Your task to perform on an android device: Open Reddit.com Image 0: 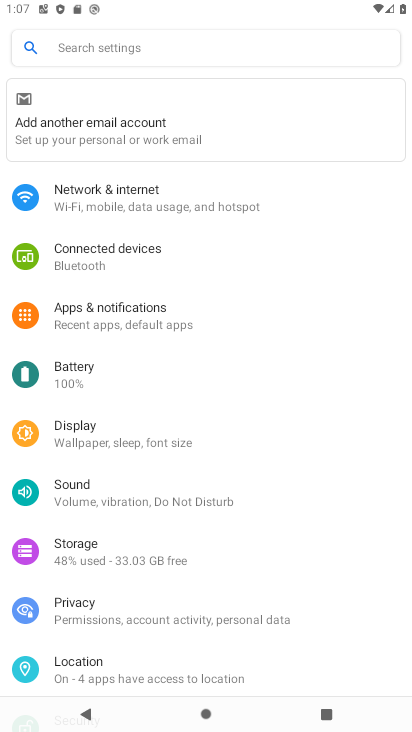
Step 0: press home button
Your task to perform on an android device: Open Reddit.com Image 1: 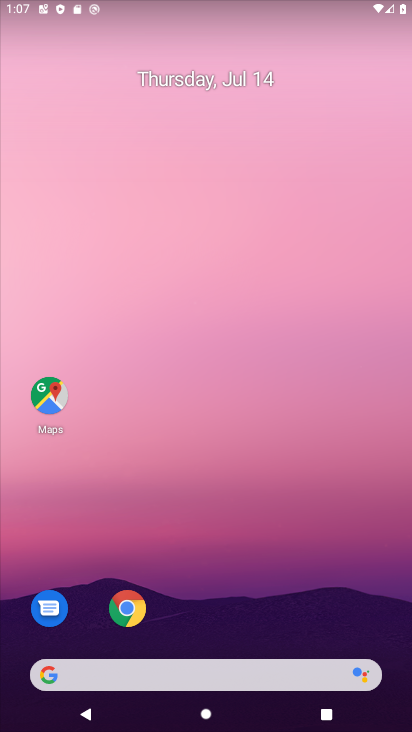
Step 1: click (127, 609)
Your task to perform on an android device: Open Reddit.com Image 2: 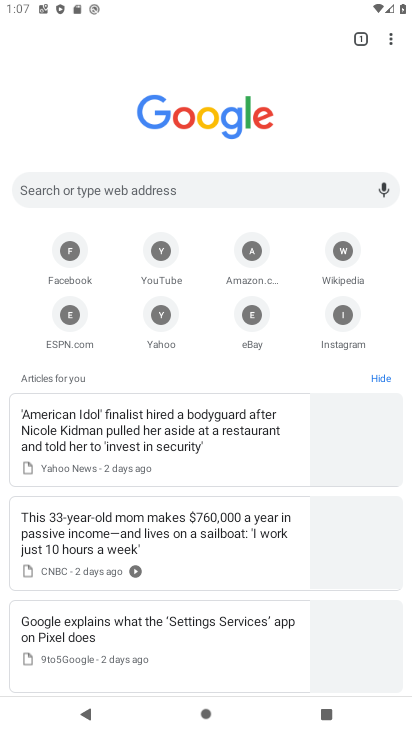
Step 2: click (119, 182)
Your task to perform on an android device: Open Reddit.com Image 3: 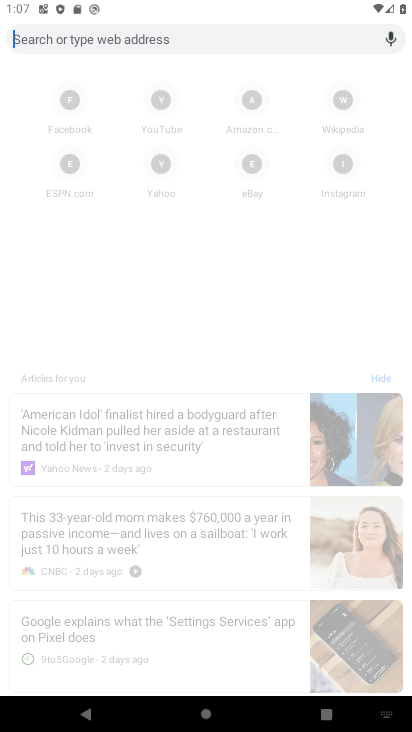
Step 3: type "Reddit.com"
Your task to perform on an android device: Open Reddit.com Image 4: 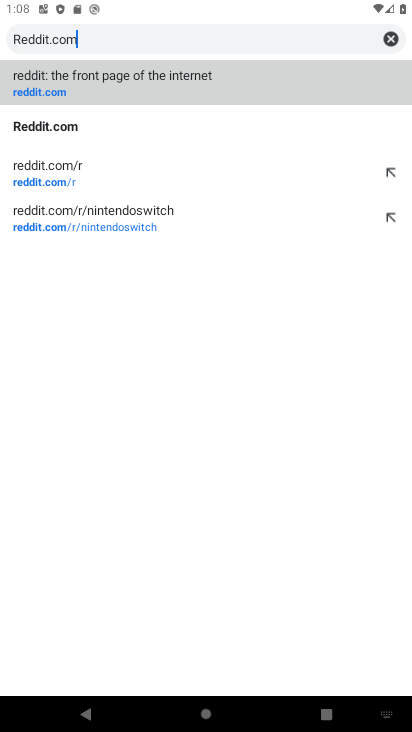
Step 4: click (57, 78)
Your task to perform on an android device: Open Reddit.com Image 5: 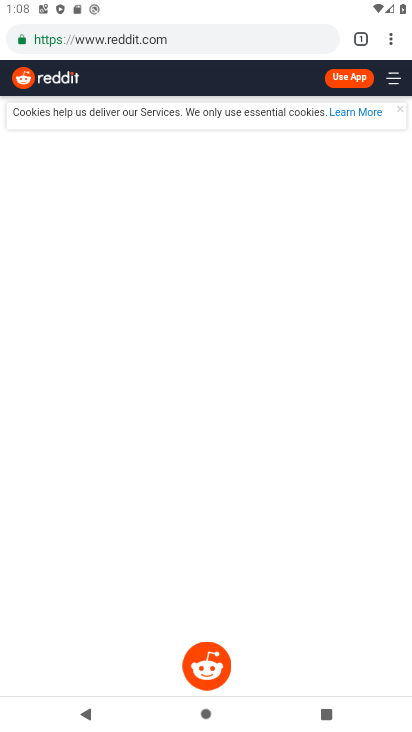
Step 5: task complete